Your task to perform on an android device: Go to Google maps Image 0: 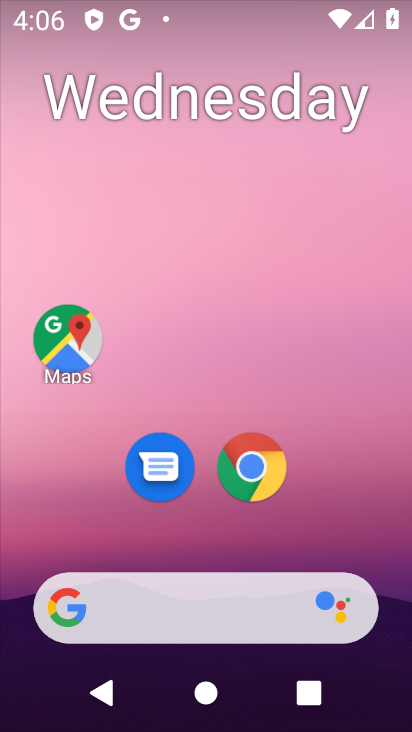
Step 0: click (82, 340)
Your task to perform on an android device: Go to Google maps Image 1: 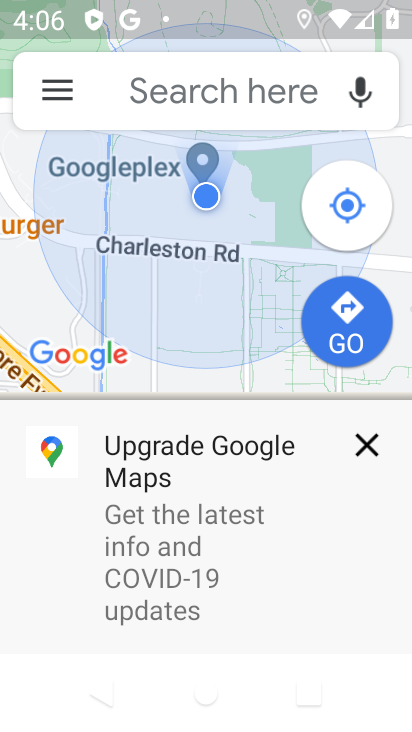
Step 1: click (356, 450)
Your task to perform on an android device: Go to Google maps Image 2: 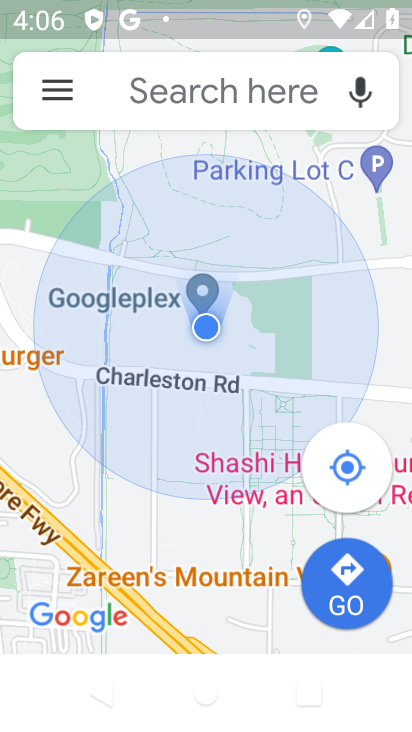
Step 2: task complete